Your task to perform on an android device: Open Yahoo.com Image 0: 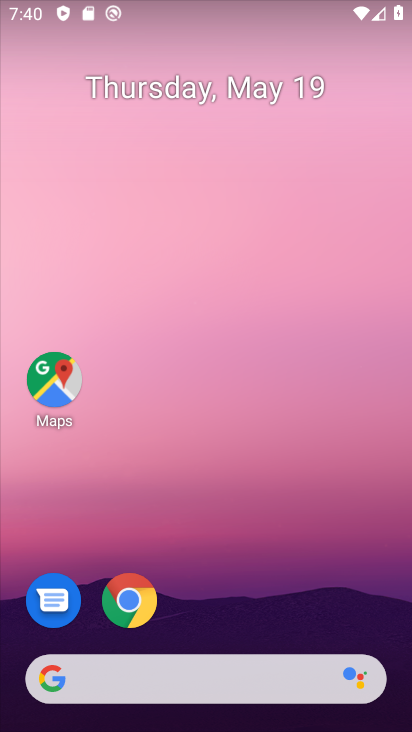
Step 0: click (136, 603)
Your task to perform on an android device: Open Yahoo.com Image 1: 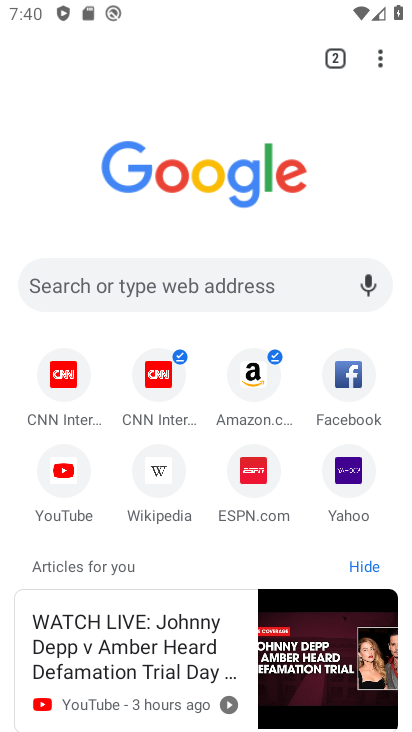
Step 1: click (340, 478)
Your task to perform on an android device: Open Yahoo.com Image 2: 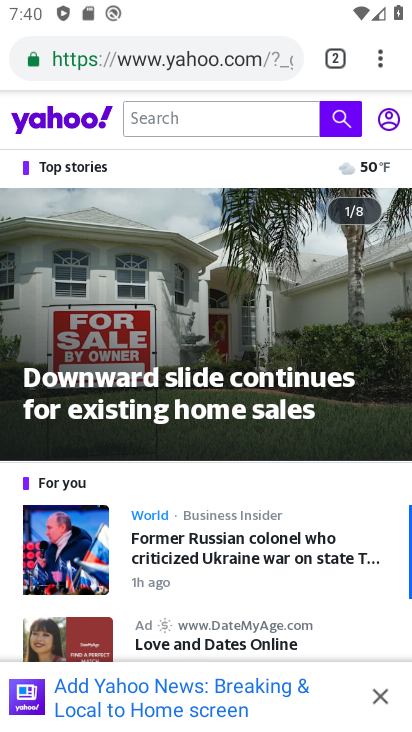
Step 2: task complete